Your task to perform on an android device: Go to display settings Image 0: 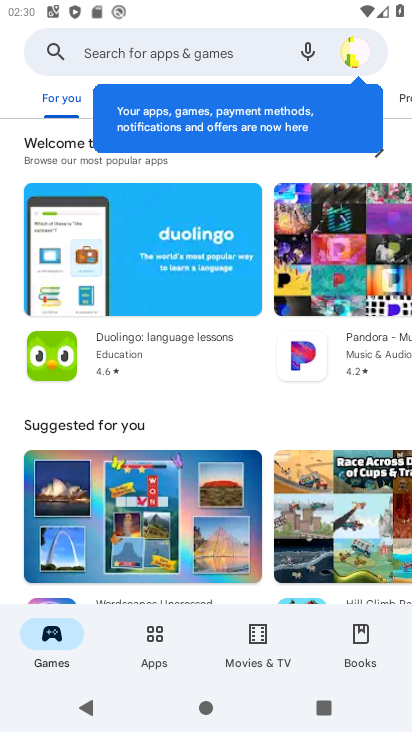
Step 0: press back button
Your task to perform on an android device: Go to display settings Image 1: 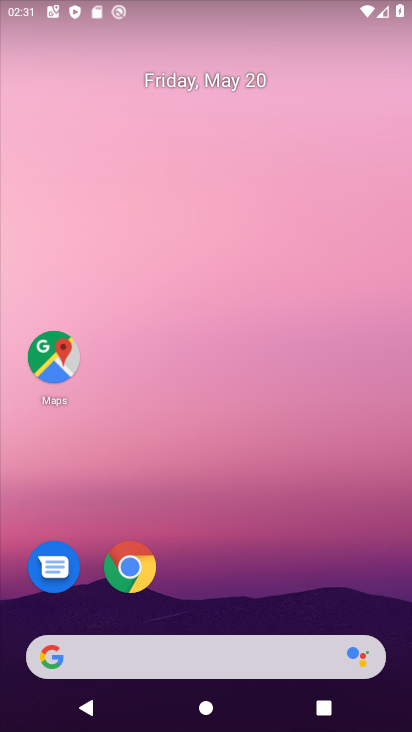
Step 1: drag from (231, 555) to (144, 32)
Your task to perform on an android device: Go to display settings Image 2: 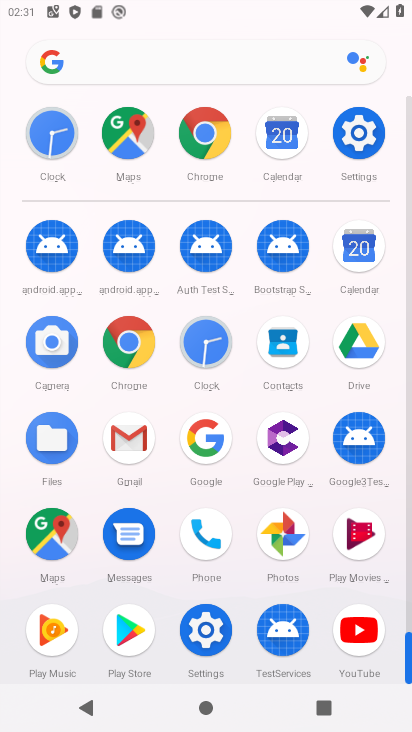
Step 2: drag from (18, 553) to (16, 265)
Your task to perform on an android device: Go to display settings Image 3: 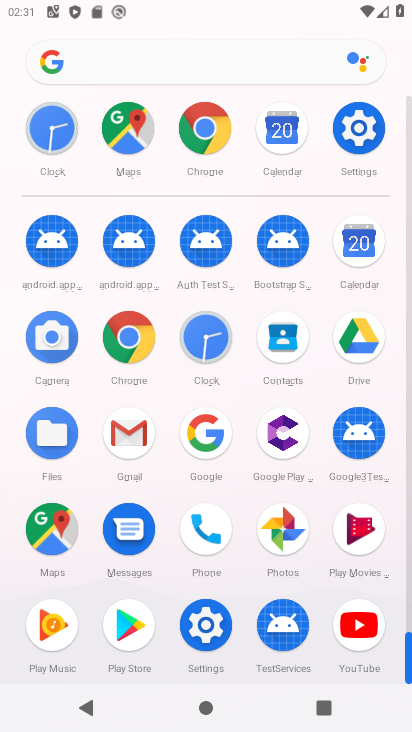
Step 3: drag from (16, 594) to (29, 332)
Your task to perform on an android device: Go to display settings Image 4: 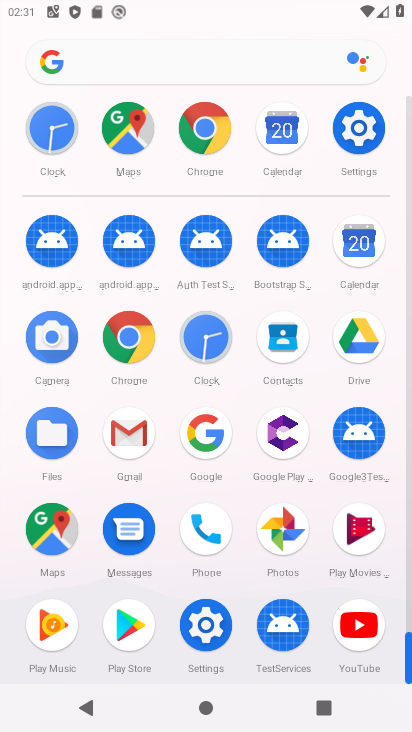
Step 4: click (208, 620)
Your task to perform on an android device: Go to display settings Image 5: 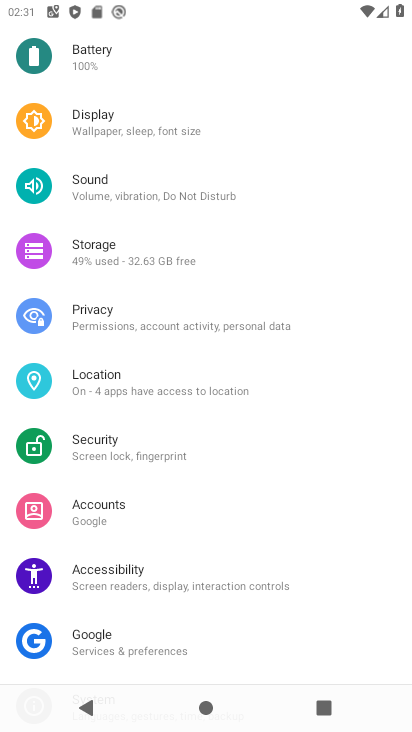
Step 5: click (126, 128)
Your task to perform on an android device: Go to display settings Image 6: 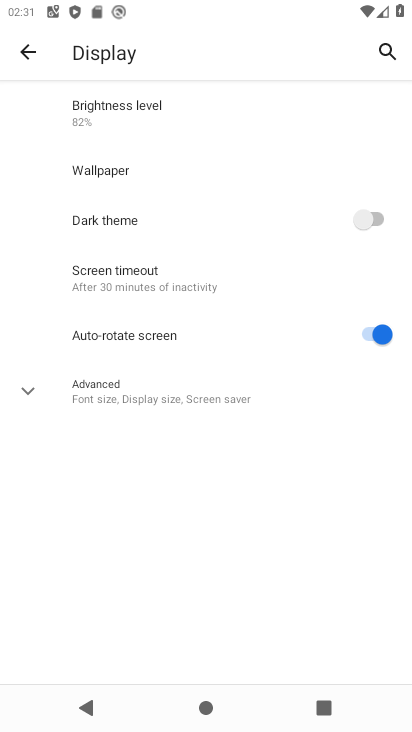
Step 6: click (50, 384)
Your task to perform on an android device: Go to display settings Image 7: 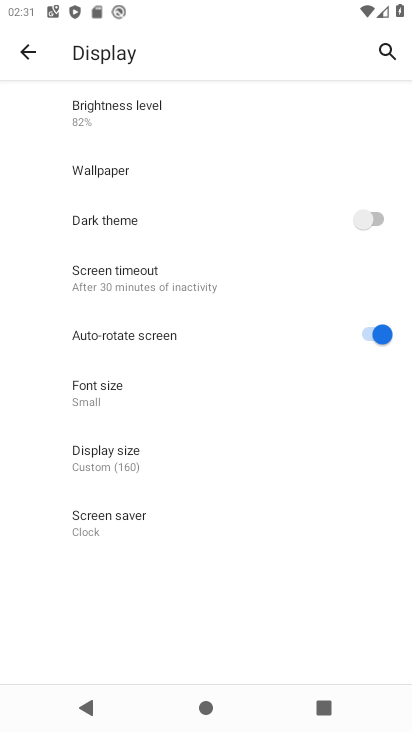
Step 7: task complete